Your task to perform on an android device: turn off location history Image 0: 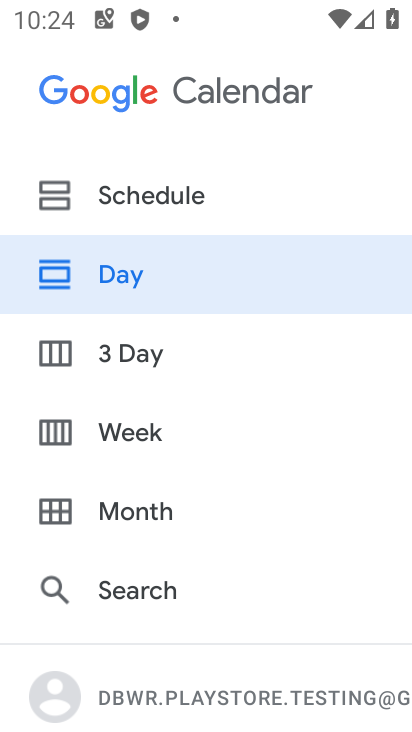
Step 0: press home button
Your task to perform on an android device: turn off location history Image 1: 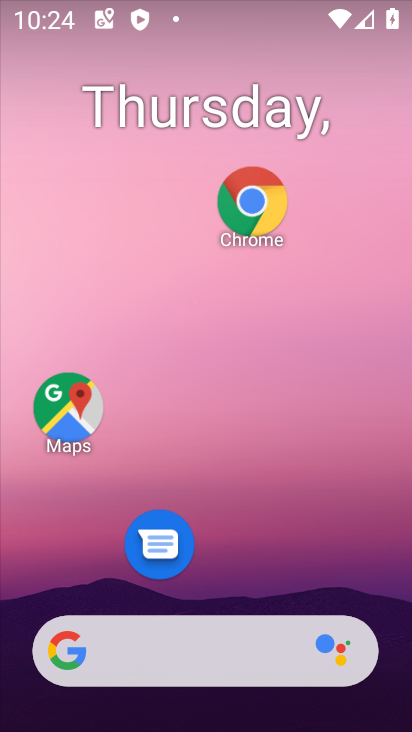
Step 1: drag from (219, 600) to (237, 60)
Your task to perform on an android device: turn off location history Image 2: 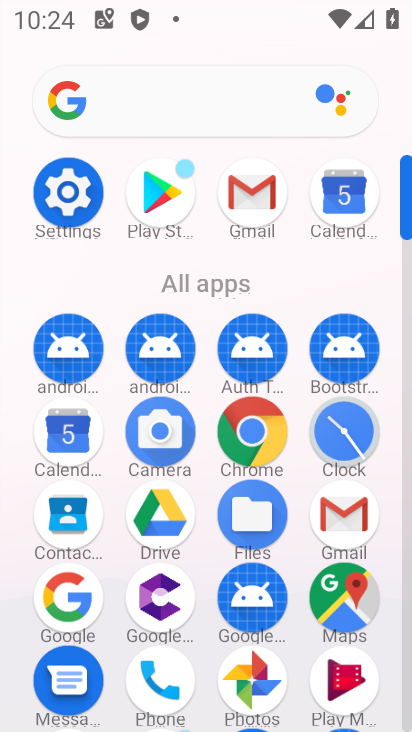
Step 2: click (67, 184)
Your task to perform on an android device: turn off location history Image 3: 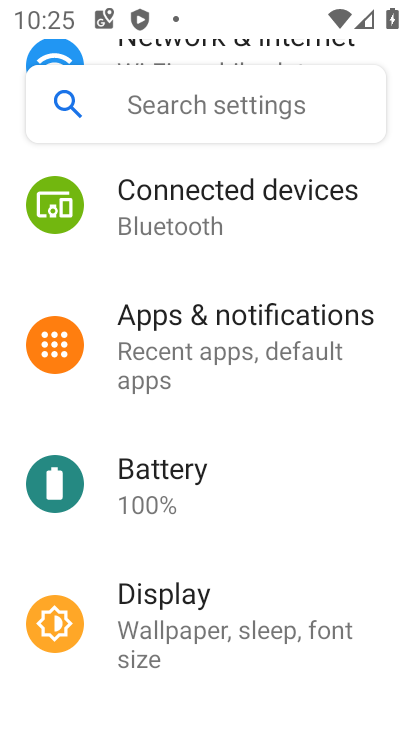
Step 3: drag from (103, 651) to (138, 216)
Your task to perform on an android device: turn off location history Image 4: 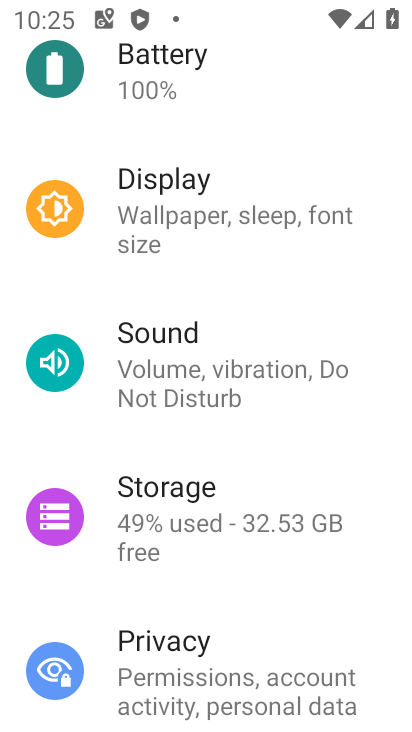
Step 4: drag from (100, 631) to (119, 195)
Your task to perform on an android device: turn off location history Image 5: 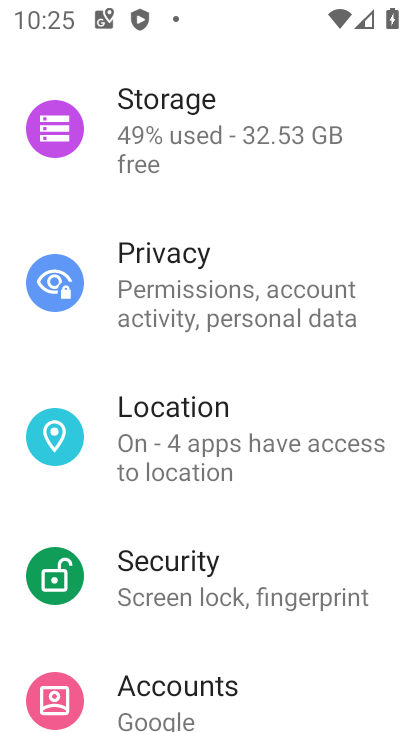
Step 5: click (98, 428)
Your task to perform on an android device: turn off location history Image 6: 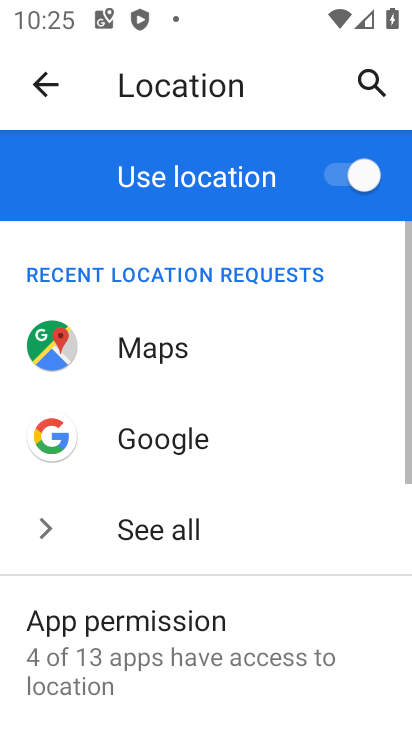
Step 6: drag from (153, 681) to (185, 235)
Your task to perform on an android device: turn off location history Image 7: 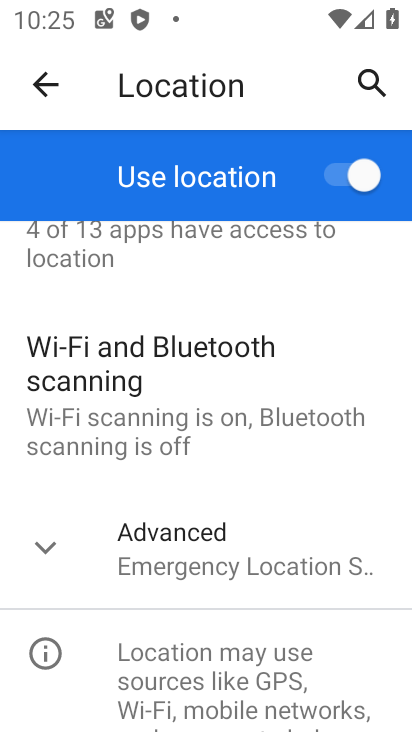
Step 7: click (40, 563)
Your task to perform on an android device: turn off location history Image 8: 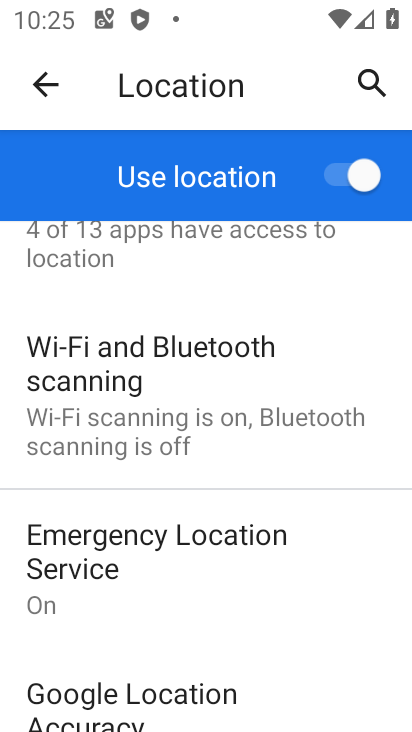
Step 8: drag from (139, 645) to (131, 222)
Your task to perform on an android device: turn off location history Image 9: 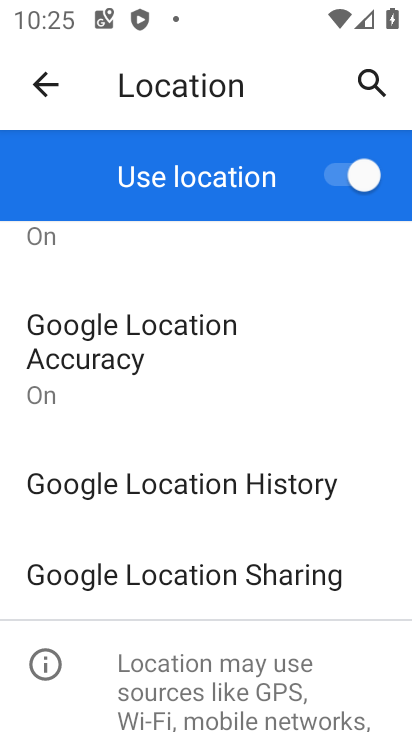
Step 9: click (219, 483)
Your task to perform on an android device: turn off location history Image 10: 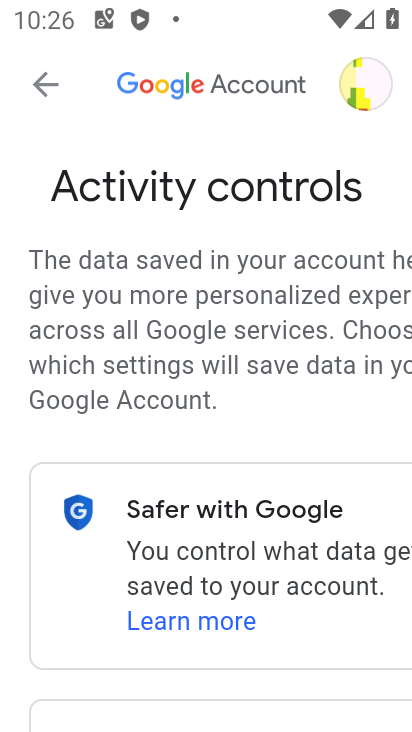
Step 10: task complete